Your task to perform on an android device: Go to sound settings Image 0: 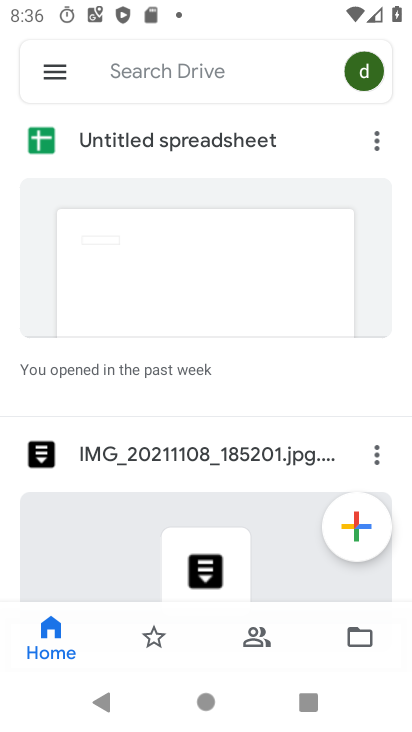
Step 0: press home button
Your task to perform on an android device: Go to sound settings Image 1: 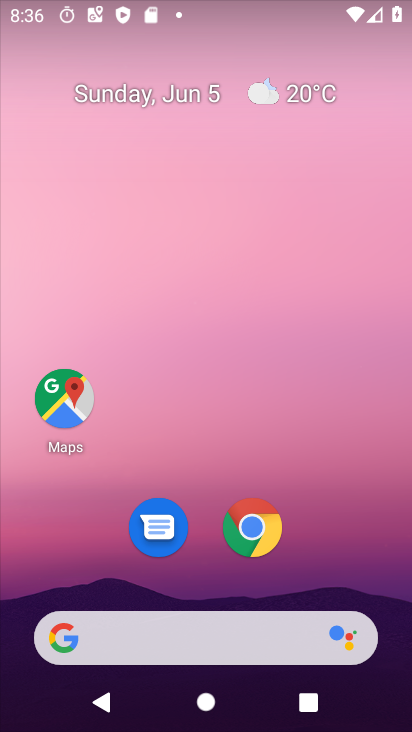
Step 1: drag from (239, 724) to (183, 7)
Your task to perform on an android device: Go to sound settings Image 2: 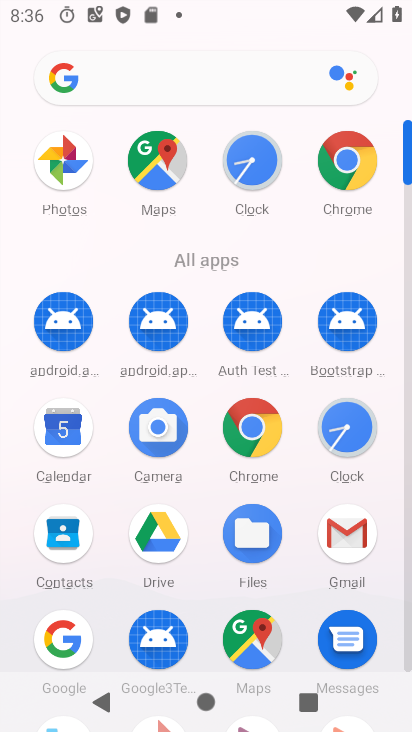
Step 2: drag from (210, 602) to (210, 201)
Your task to perform on an android device: Go to sound settings Image 3: 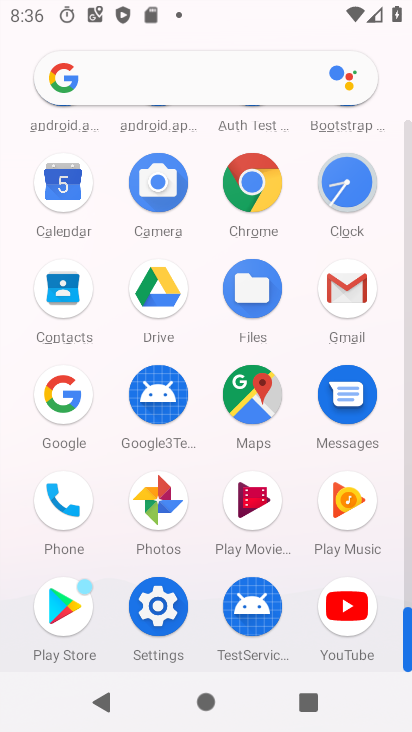
Step 3: click (163, 614)
Your task to perform on an android device: Go to sound settings Image 4: 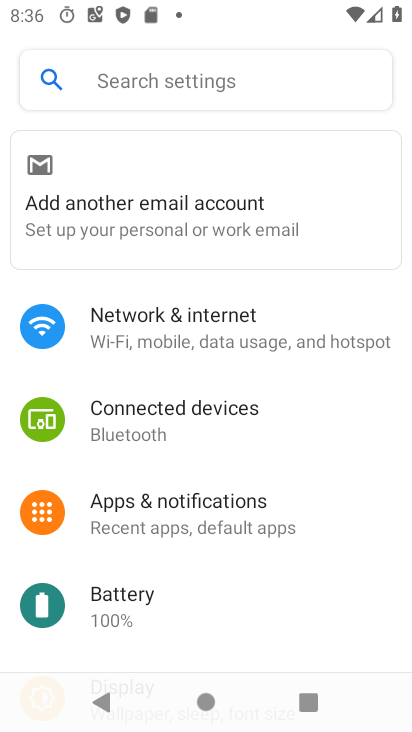
Step 4: drag from (162, 640) to (147, 278)
Your task to perform on an android device: Go to sound settings Image 5: 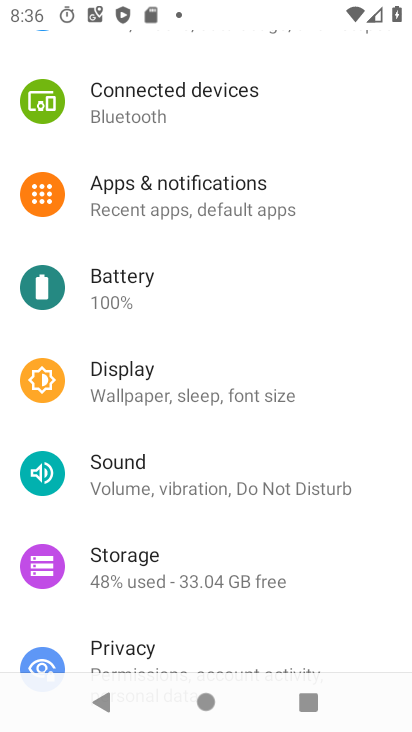
Step 5: click (130, 484)
Your task to perform on an android device: Go to sound settings Image 6: 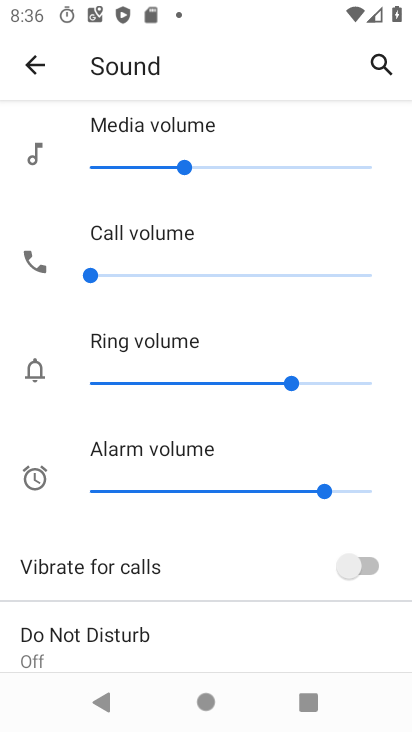
Step 6: task complete